Your task to perform on an android device: toggle show notifications on the lock screen Image 0: 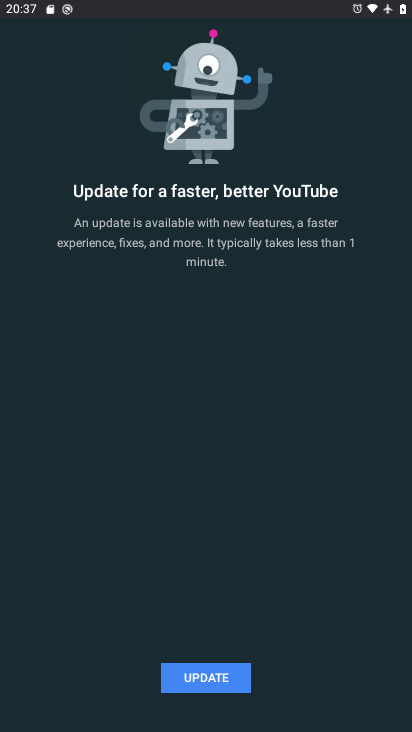
Step 0: press home button
Your task to perform on an android device: toggle show notifications on the lock screen Image 1: 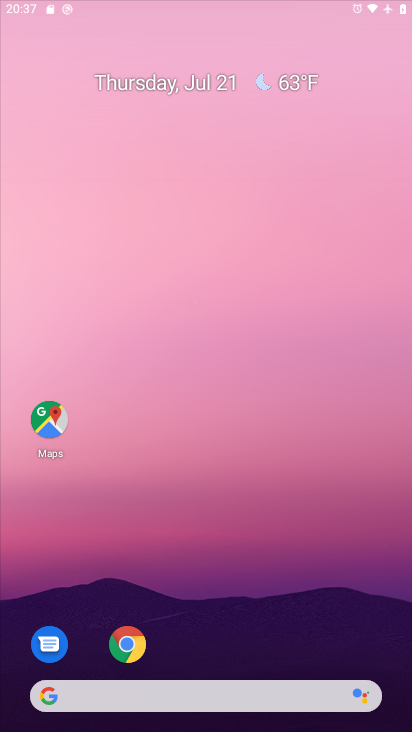
Step 1: drag from (205, 712) to (185, 147)
Your task to perform on an android device: toggle show notifications on the lock screen Image 2: 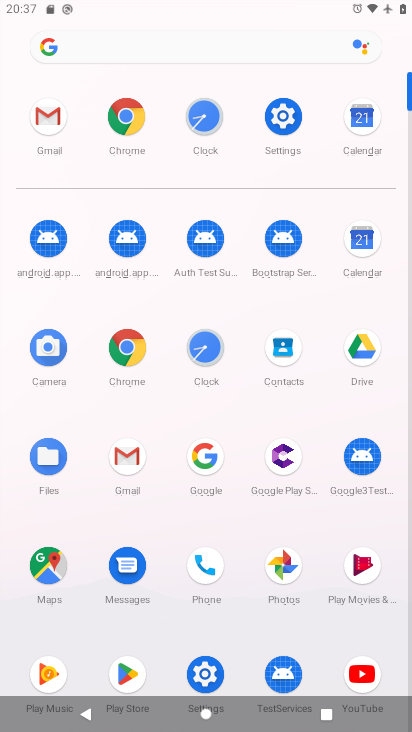
Step 2: click (282, 112)
Your task to perform on an android device: toggle show notifications on the lock screen Image 3: 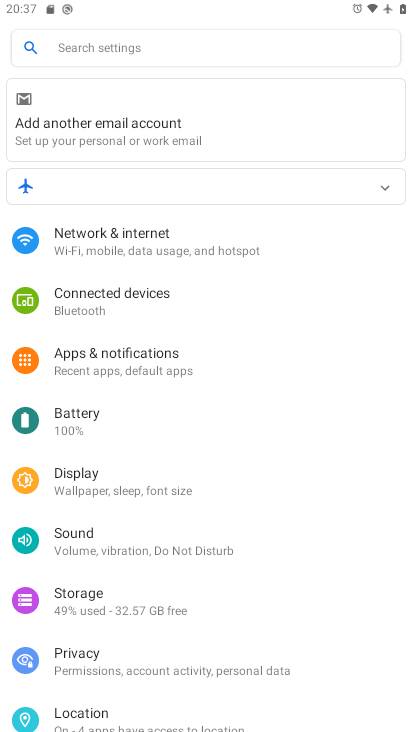
Step 3: click (148, 349)
Your task to perform on an android device: toggle show notifications on the lock screen Image 4: 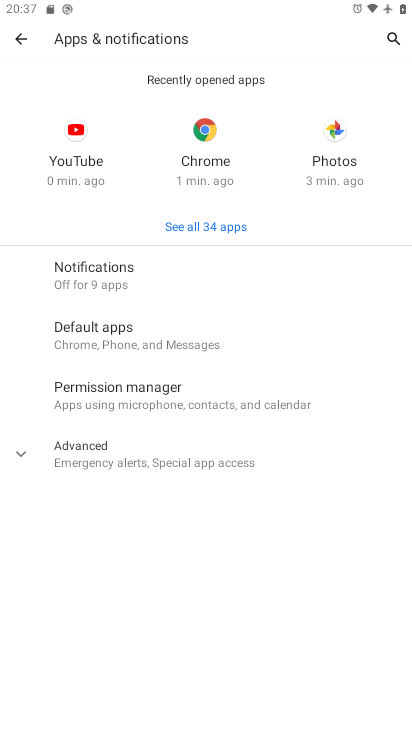
Step 4: drag from (93, 443) to (264, 236)
Your task to perform on an android device: toggle show notifications on the lock screen Image 5: 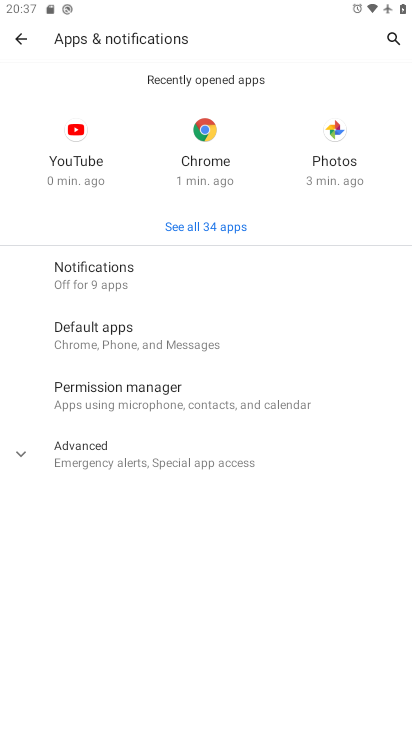
Step 5: click (107, 271)
Your task to perform on an android device: toggle show notifications on the lock screen Image 6: 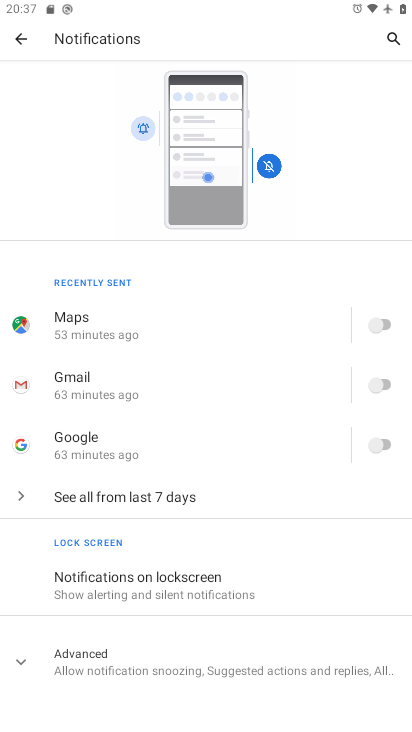
Step 6: click (155, 590)
Your task to perform on an android device: toggle show notifications on the lock screen Image 7: 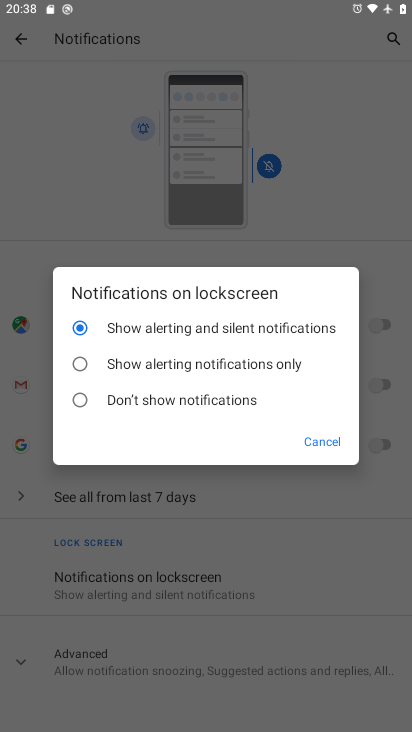
Step 7: task complete